Your task to perform on an android device: change alarm snooze length Image 0: 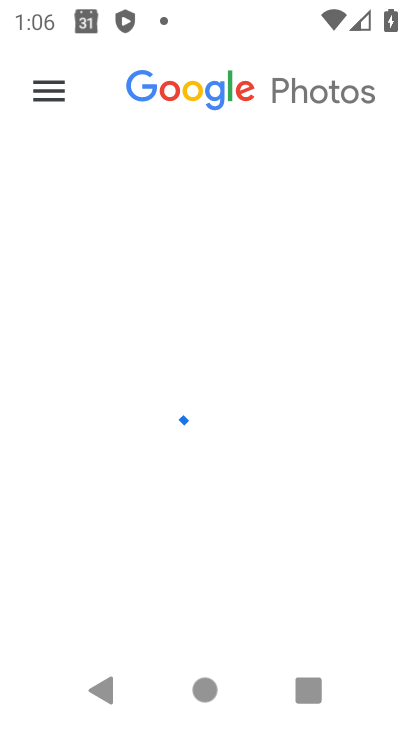
Step 0: press back button
Your task to perform on an android device: change alarm snooze length Image 1: 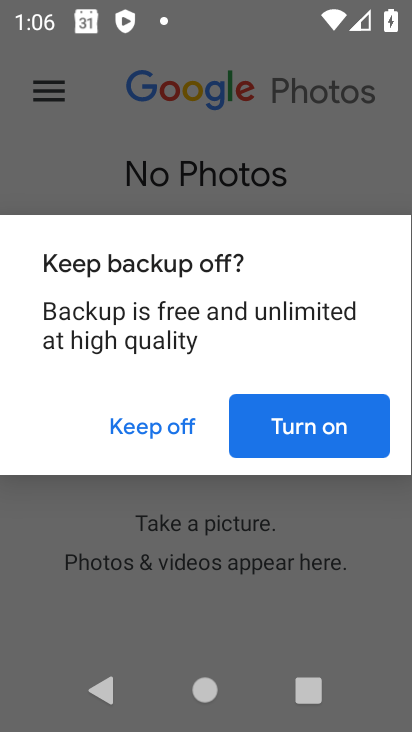
Step 1: press home button
Your task to perform on an android device: change alarm snooze length Image 2: 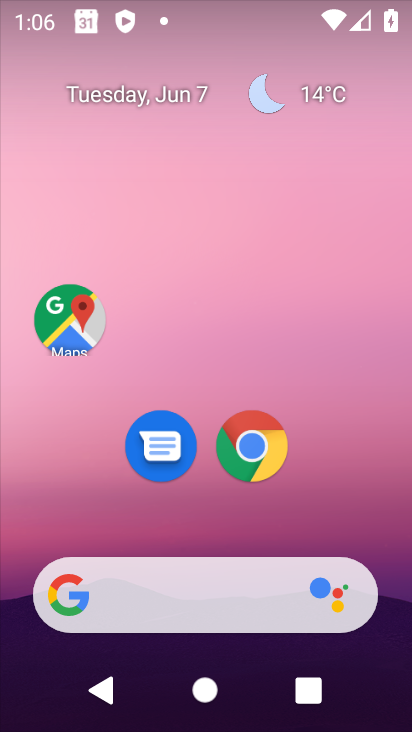
Step 2: drag from (338, 536) to (279, 56)
Your task to perform on an android device: change alarm snooze length Image 3: 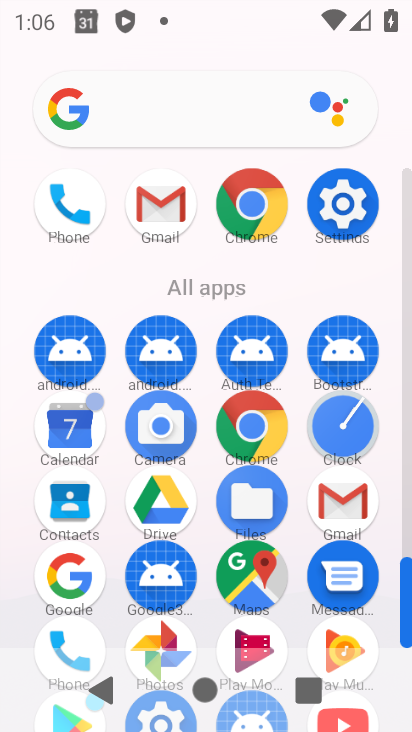
Step 3: drag from (6, 684) to (8, 384)
Your task to perform on an android device: change alarm snooze length Image 4: 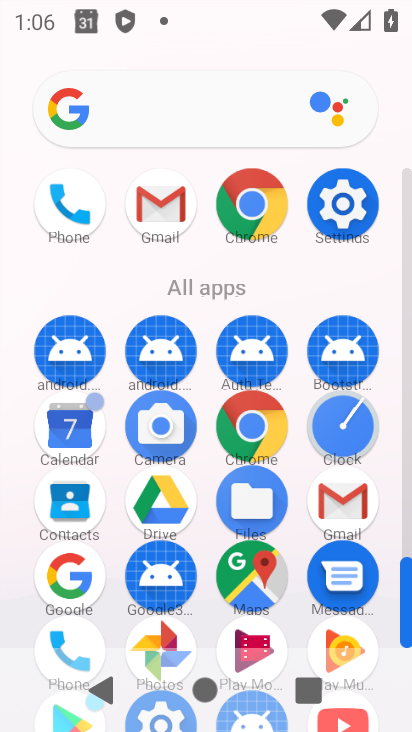
Step 4: drag from (7, 643) to (19, 329)
Your task to perform on an android device: change alarm snooze length Image 5: 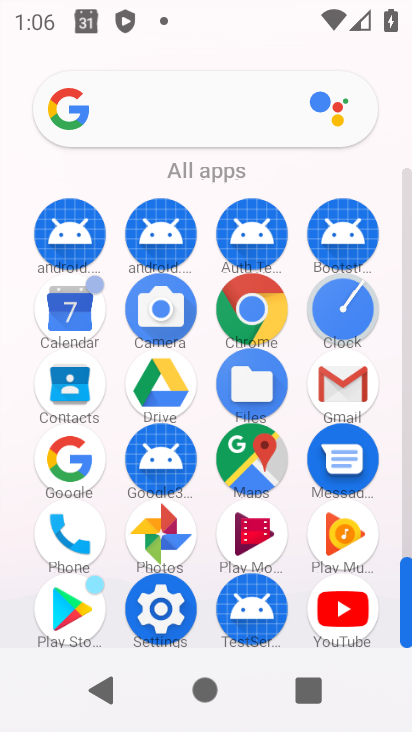
Step 5: click (346, 302)
Your task to perform on an android device: change alarm snooze length Image 6: 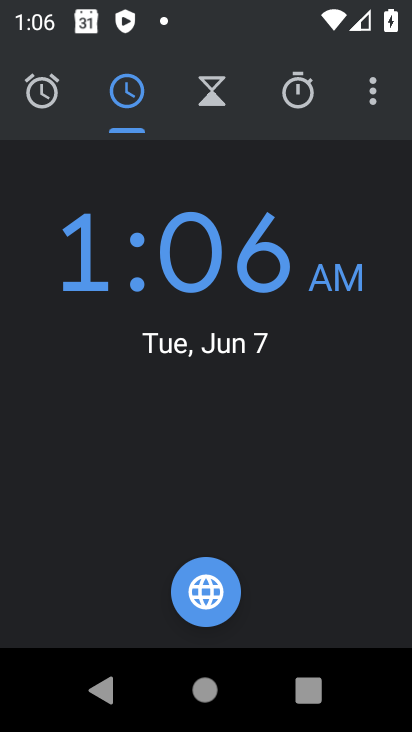
Step 6: drag from (375, 83) to (293, 167)
Your task to perform on an android device: change alarm snooze length Image 7: 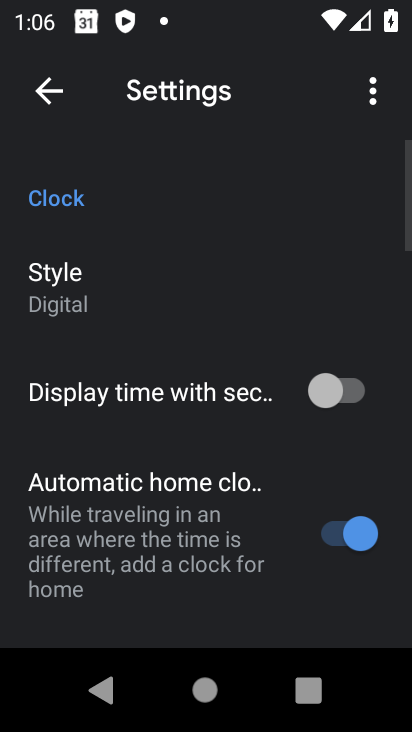
Step 7: drag from (155, 580) to (174, 143)
Your task to perform on an android device: change alarm snooze length Image 8: 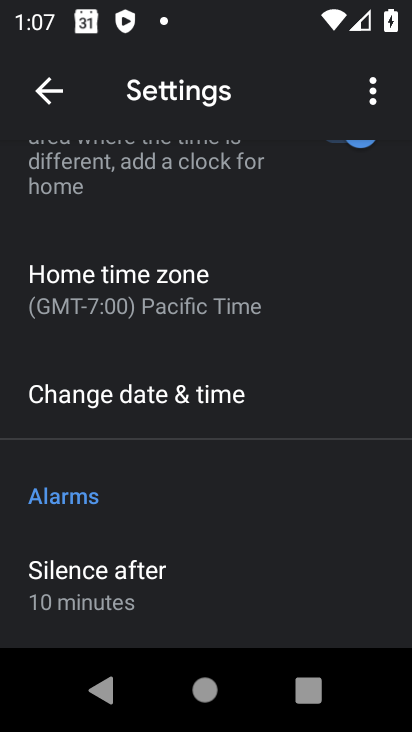
Step 8: drag from (216, 560) to (209, 164)
Your task to perform on an android device: change alarm snooze length Image 9: 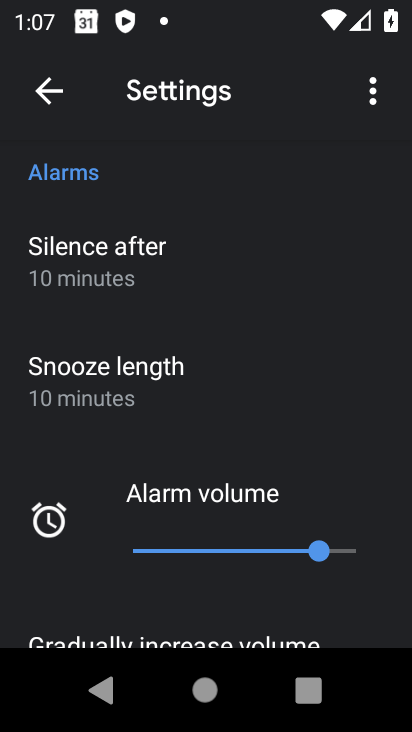
Step 9: click (199, 371)
Your task to perform on an android device: change alarm snooze length Image 10: 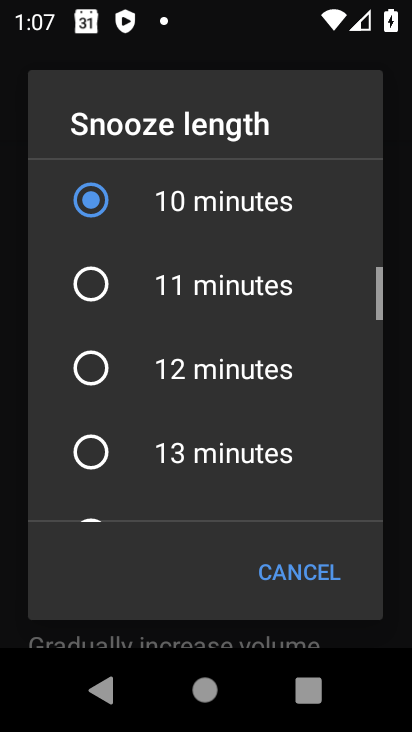
Step 10: click (190, 290)
Your task to perform on an android device: change alarm snooze length Image 11: 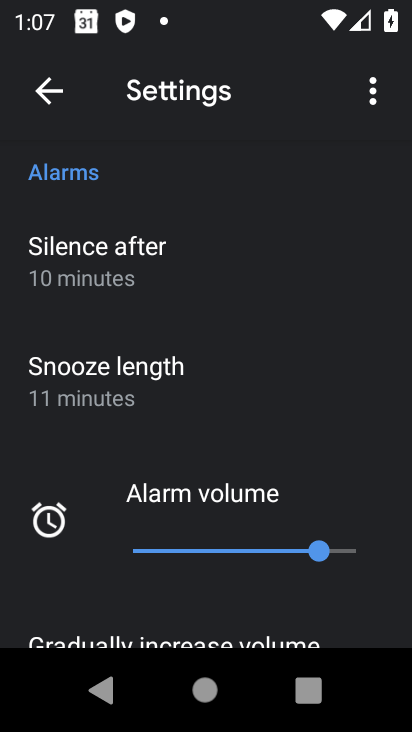
Step 11: task complete